Your task to perform on an android device: toggle javascript in the chrome app Image 0: 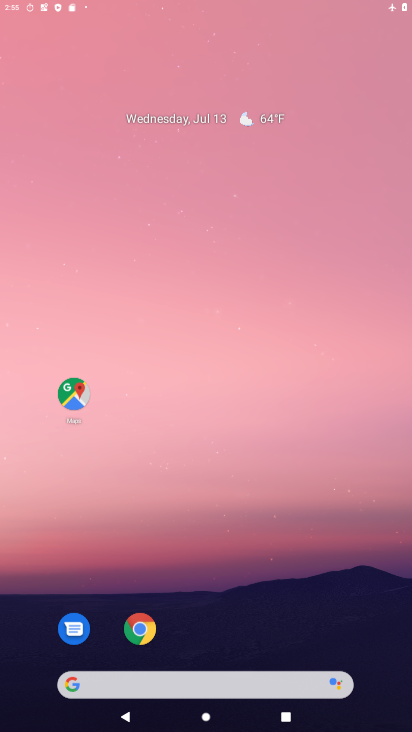
Step 0: click (260, 25)
Your task to perform on an android device: toggle javascript in the chrome app Image 1: 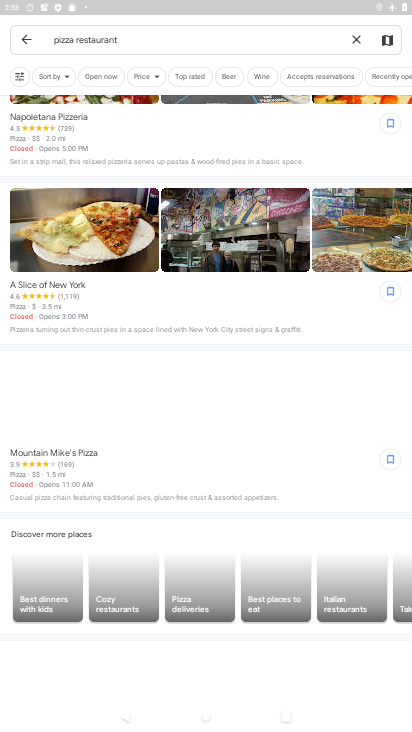
Step 1: press home button
Your task to perform on an android device: toggle javascript in the chrome app Image 2: 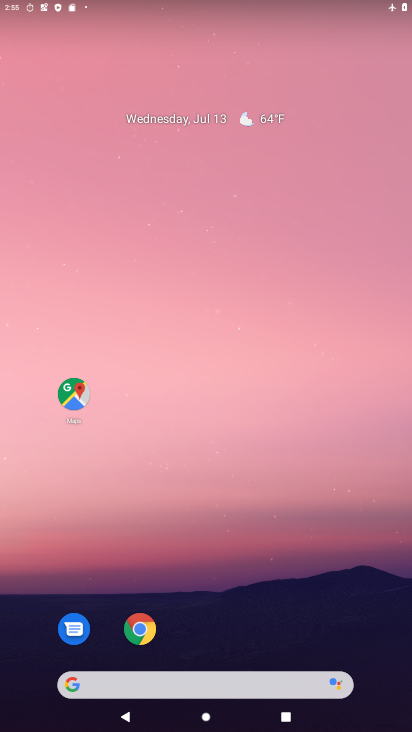
Step 2: drag from (258, 568) to (309, 4)
Your task to perform on an android device: toggle javascript in the chrome app Image 3: 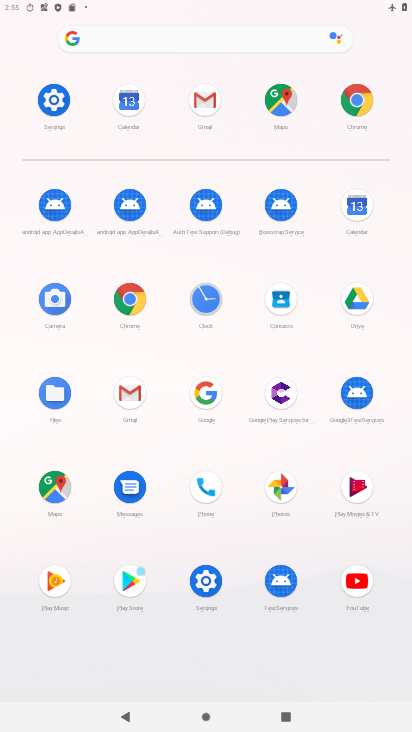
Step 3: click (129, 308)
Your task to perform on an android device: toggle javascript in the chrome app Image 4: 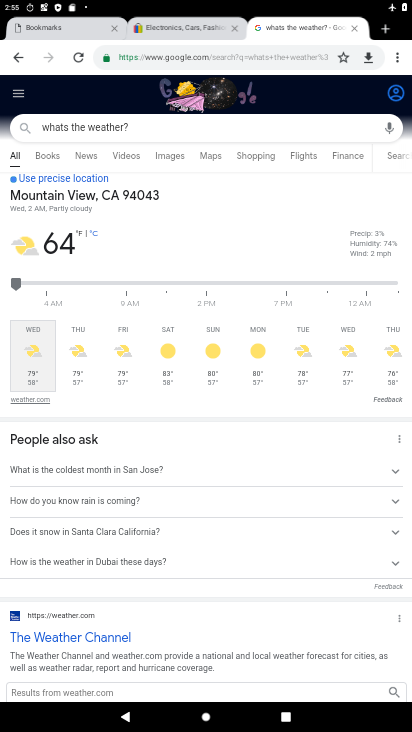
Step 4: drag from (396, 55) to (273, 352)
Your task to perform on an android device: toggle javascript in the chrome app Image 5: 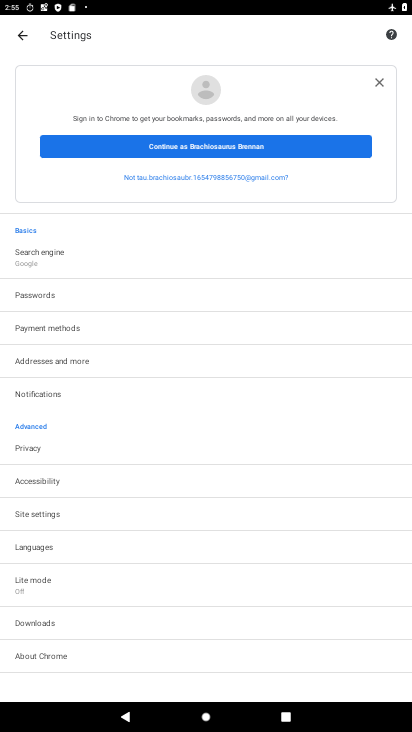
Step 5: drag from (131, 631) to (210, 276)
Your task to perform on an android device: toggle javascript in the chrome app Image 6: 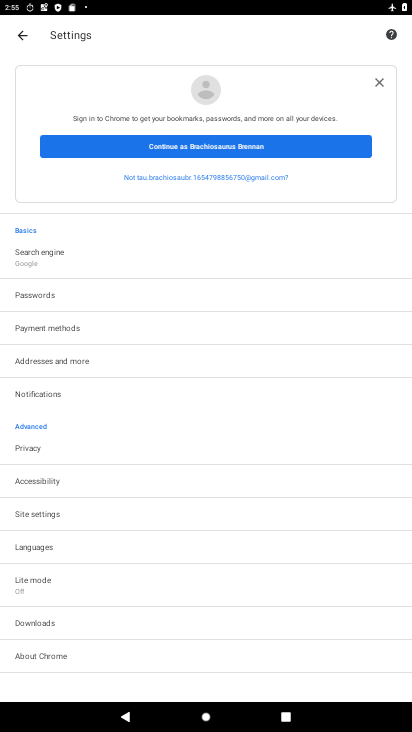
Step 6: click (50, 510)
Your task to perform on an android device: toggle javascript in the chrome app Image 7: 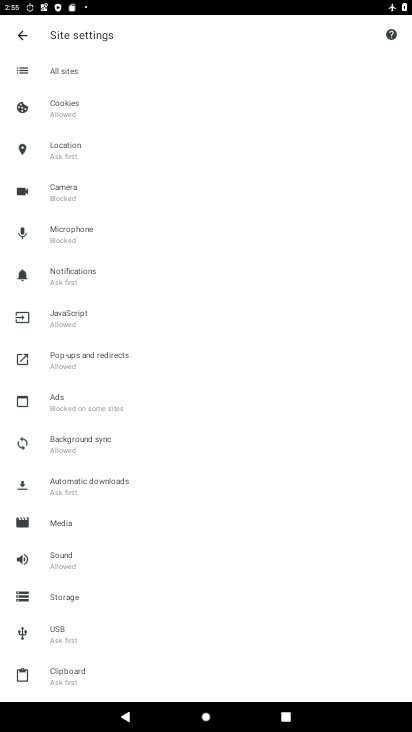
Step 7: click (72, 326)
Your task to perform on an android device: toggle javascript in the chrome app Image 8: 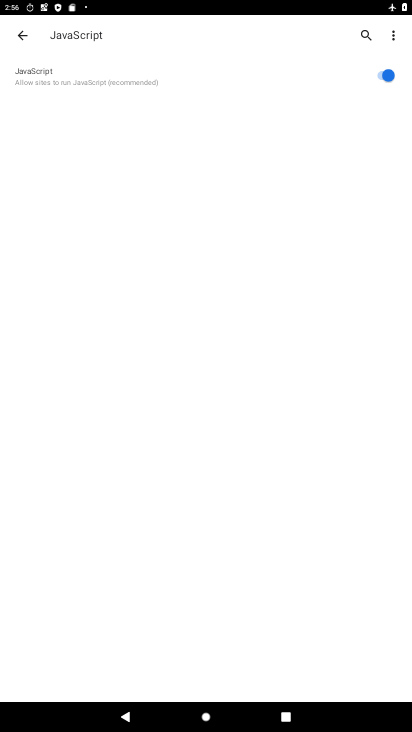
Step 8: click (380, 74)
Your task to perform on an android device: toggle javascript in the chrome app Image 9: 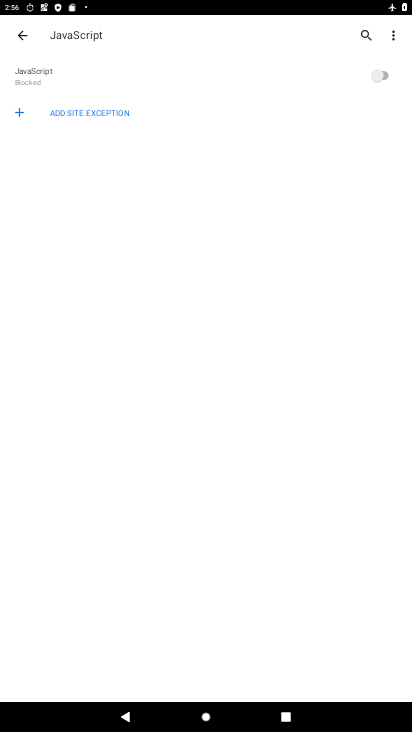
Step 9: task complete